Your task to perform on an android device: remove spam from my inbox in the gmail app Image 0: 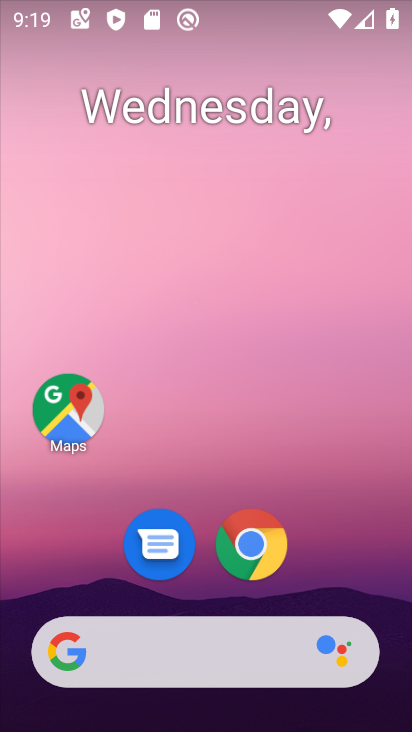
Step 0: drag from (204, 596) to (360, 400)
Your task to perform on an android device: remove spam from my inbox in the gmail app Image 1: 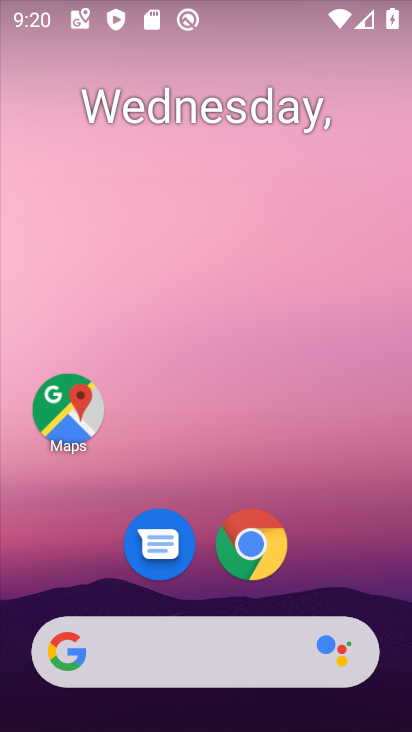
Step 1: drag from (193, 586) to (251, 0)
Your task to perform on an android device: remove spam from my inbox in the gmail app Image 2: 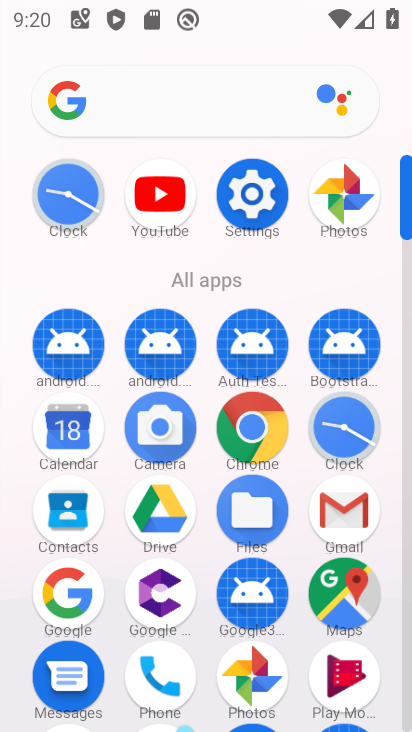
Step 2: click (335, 527)
Your task to perform on an android device: remove spam from my inbox in the gmail app Image 3: 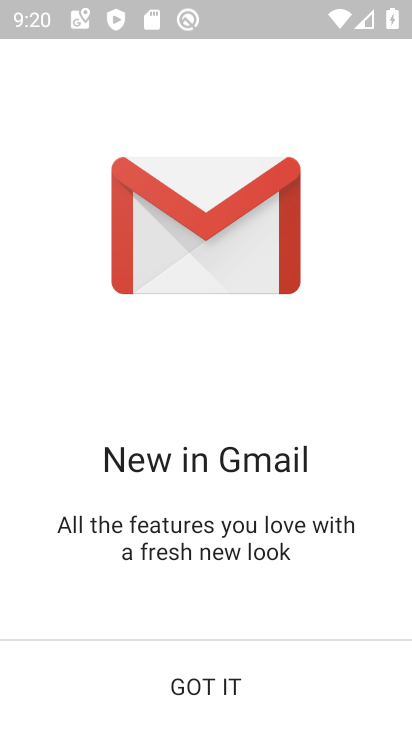
Step 3: click (137, 700)
Your task to perform on an android device: remove spam from my inbox in the gmail app Image 4: 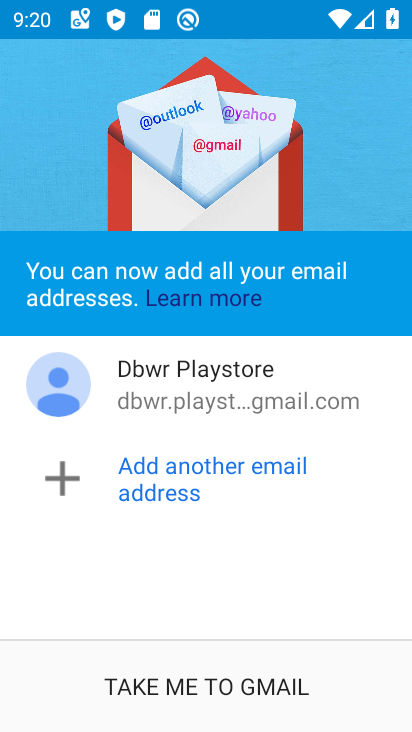
Step 4: click (199, 657)
Your task to perform on an android device: remove spam from my inbox in the gmail app Image 5: 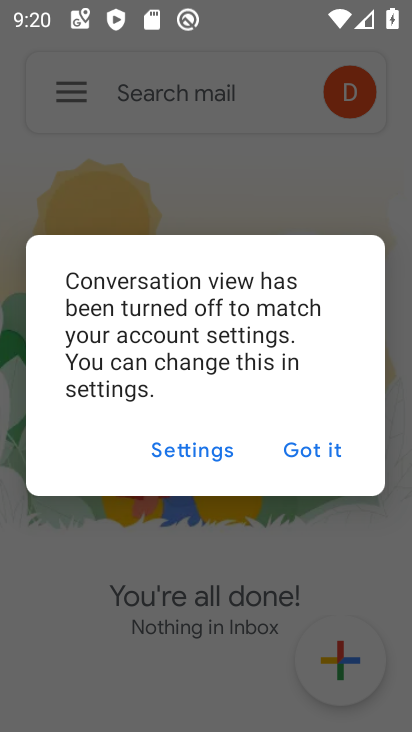
Step 5: click (310, 447)
Your task to perform on an android device: remove spam from my inbox in the gmail app Image 6: 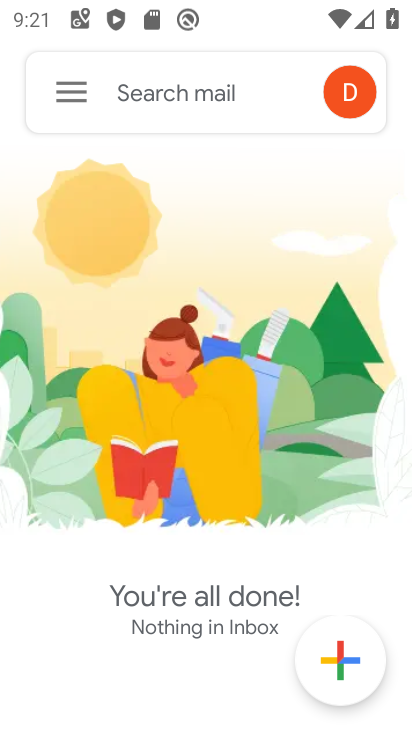
Step 6: click (70, 93)
Your task to perform on an android device: remove spam from my inbox in the gmail app Image 7: 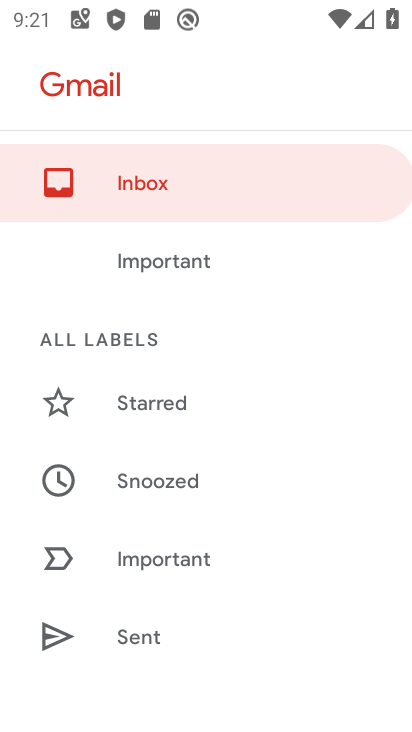
Step 7: drag from (106, 566) to (149, 207)
Your task to perform on an android device: remove spam from my inbox in the gmail app Image 8: 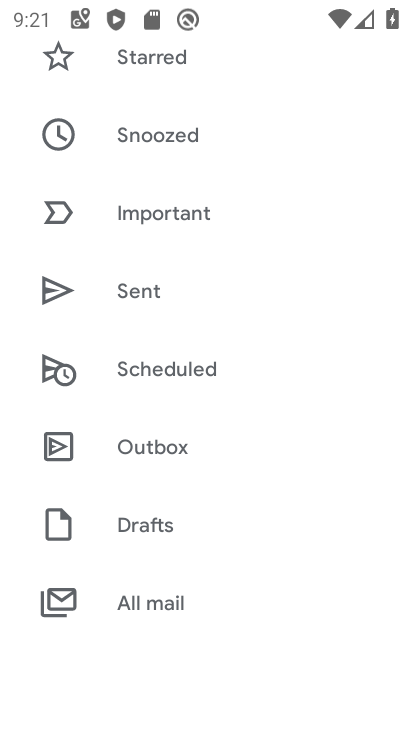
Step 8: drag from (143, 584) to (173, 174)
Your task to perform on an android device: remove spam from my inbox in the gmail app Image 9: 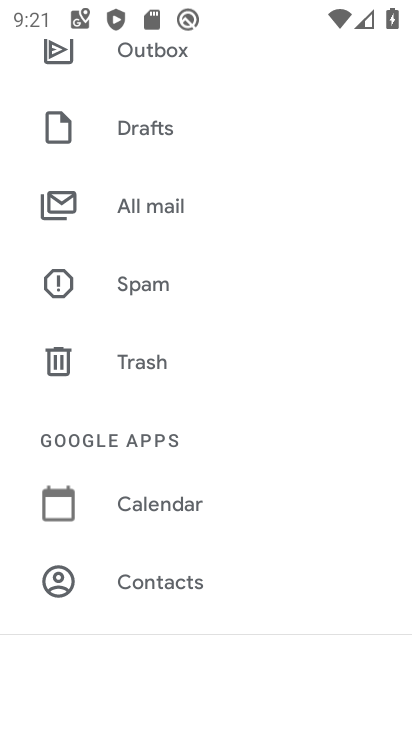
Step 9: click (151, 298)
Your task to perform on an android device: remove spam from my inbox in the gmail app Image 10: 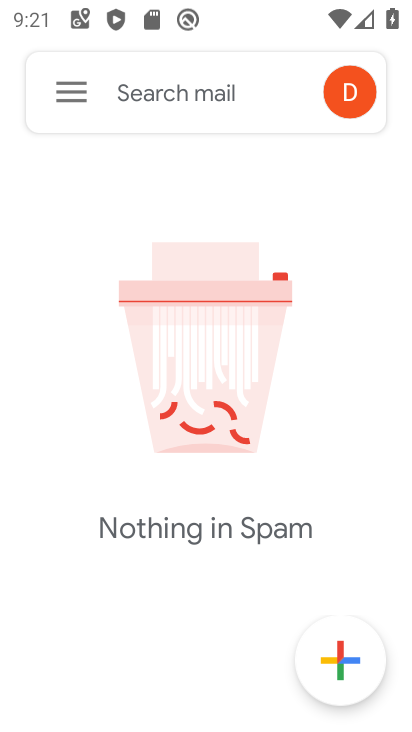
Step 10: task complete